Your task to perform on an android device: allow cookies in the chrome app Image 0: 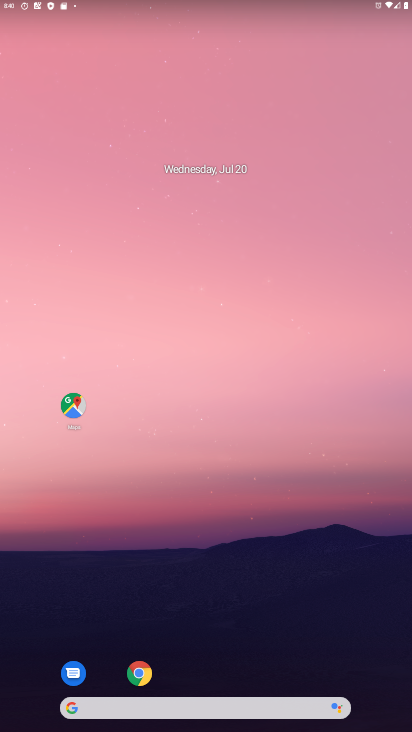
Step 0: click (139, 674)
Your task to perform on an android device: allow cookies in the chrome app Image 1: 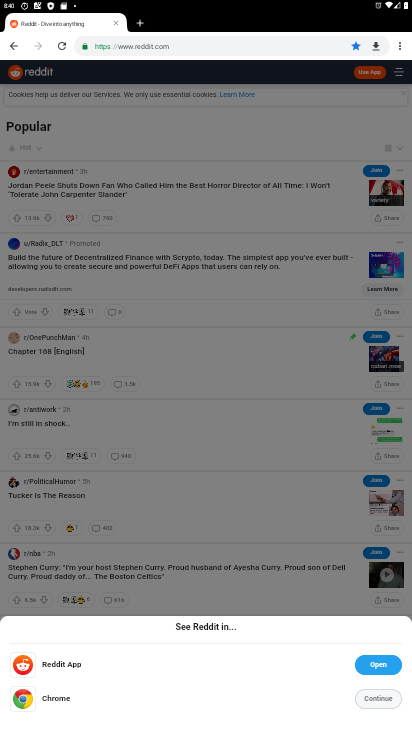
Step 1: click (397, 44)
Your task to perform on an android device: allow cookies in the chrome app Image 2: 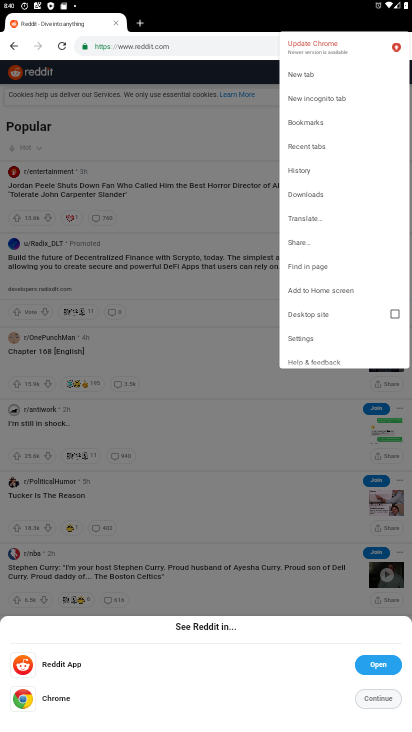
Step 2: click (306, 336)
Your task to perform on an android device: allow cookies in the chrome app Image 3: 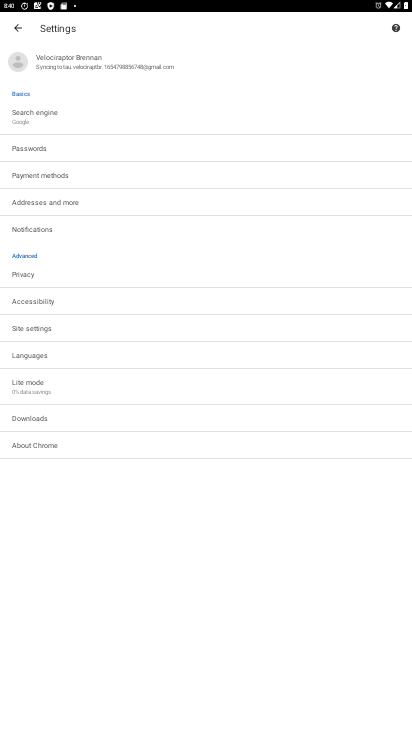
Step 3: click (51, 329)
Your task to perform on an android device: allow cookies in the chrome app Image 4: 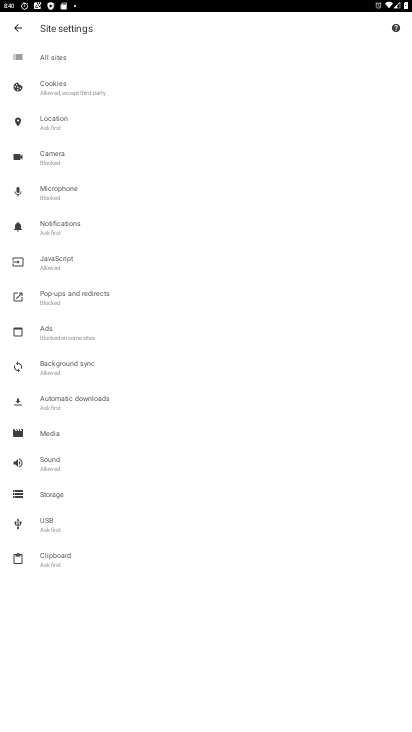
Step 4: click (86, 87)
Your task to perform on an android device: allow cookies in the chrome app Image 5: 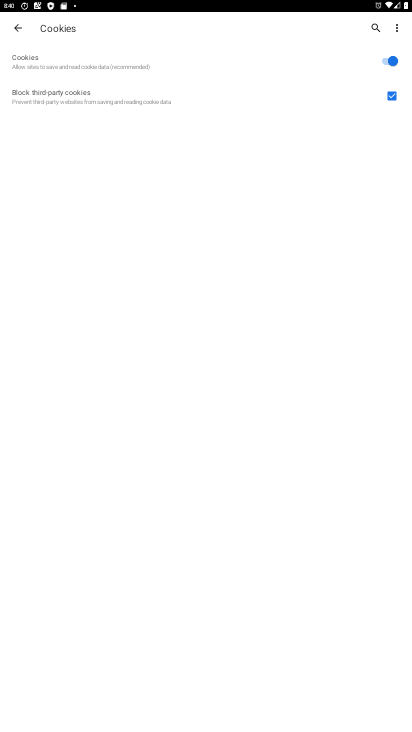
Step 5: task complete